Your task to perform on an android device: toggle pop-ups in chrome Image 0: 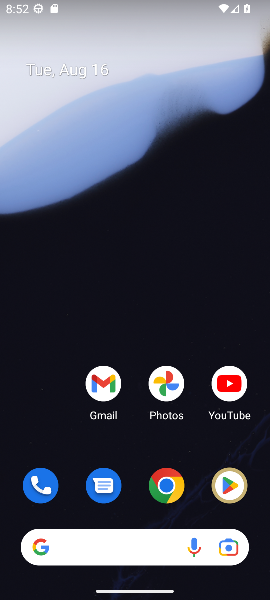
Step 0: click (172, 486)
Your task to perform on an android device: toggle pop-ups in chrome Image 1: 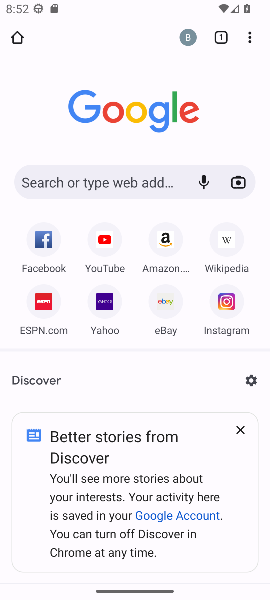
Step 1: click (252, 32)
Your task to perform on an android device: toggle pop-ups in chrome Image 2: 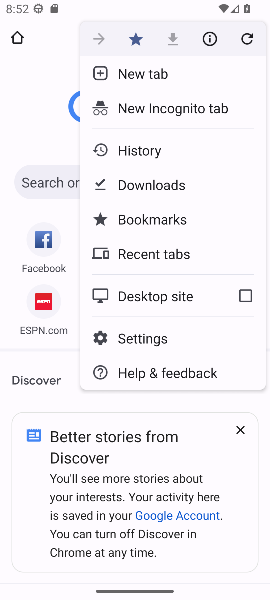
Step 2: click (173, 335)
Your task to perform on an android device: toggle pop-ups in chrome Image 3: 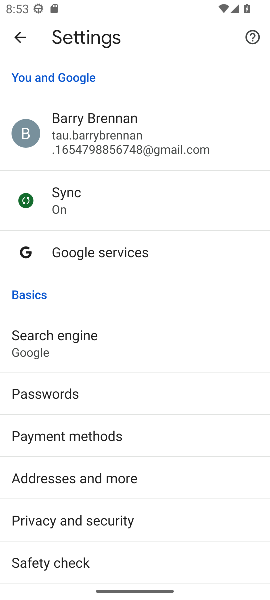
Step 3: drag from (170, 509) to (166, 264)
Your task to perform on an android device: toggle pop-ups in chrome Image 4: 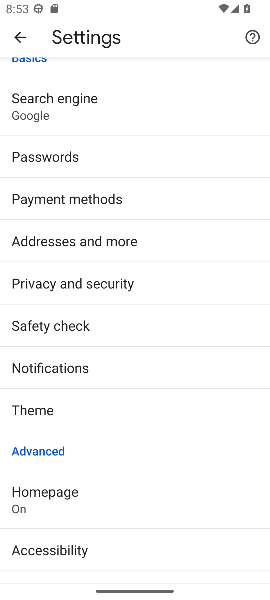
Step 4: drag from (192, 453) to (166, 178)
Your task to perform on an android device: toggle pop-ups in chrome Image 5: 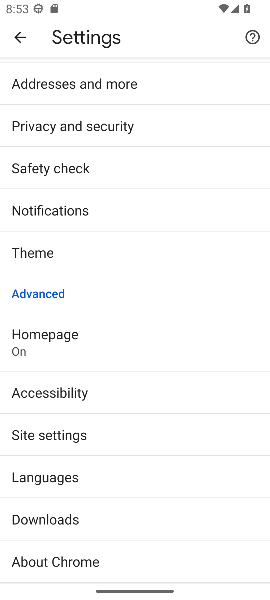
Step 5: click (90, 436)
Your task to perform on an android device: toggle pop-ups in chrome Image 6: 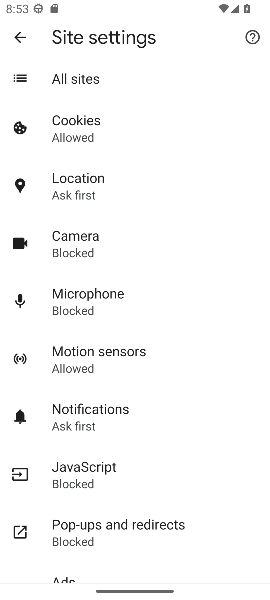
Step 6: click (161, 524)
Your task to perform on an android device: toggle pop-ups in chrome Image 7: 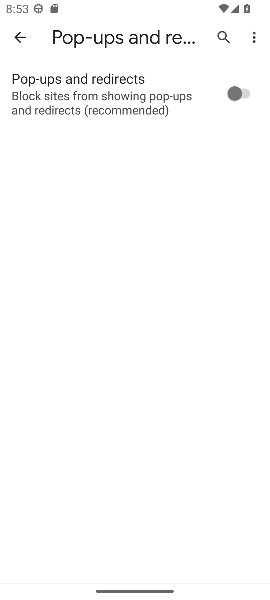
Step 7: click (230, 98)
Your task to perform on an android device: toggle pop-ups in chrome Image 8: 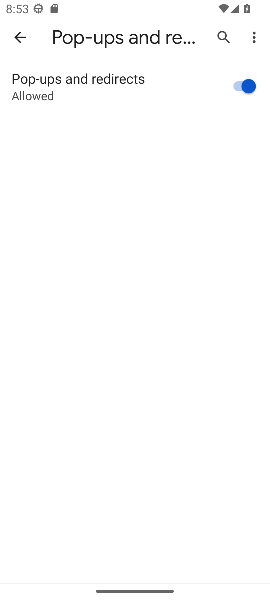
Step 8: task complete